Your task to perform on an android device: What's the news in Sri Lanka? Image 0: 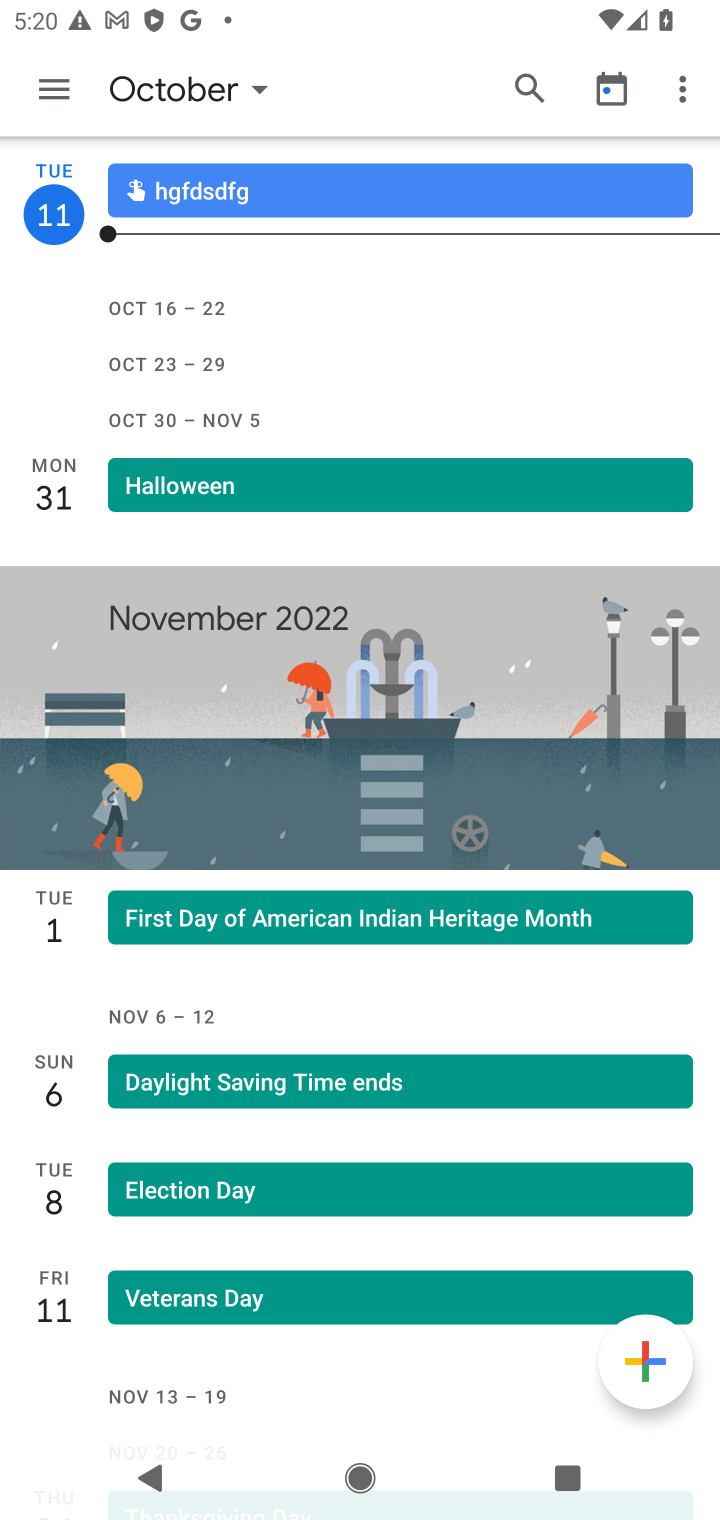
Step 0: press home button
Your task to perform on an android device: What's the news in Sri Lanka? Image 1: 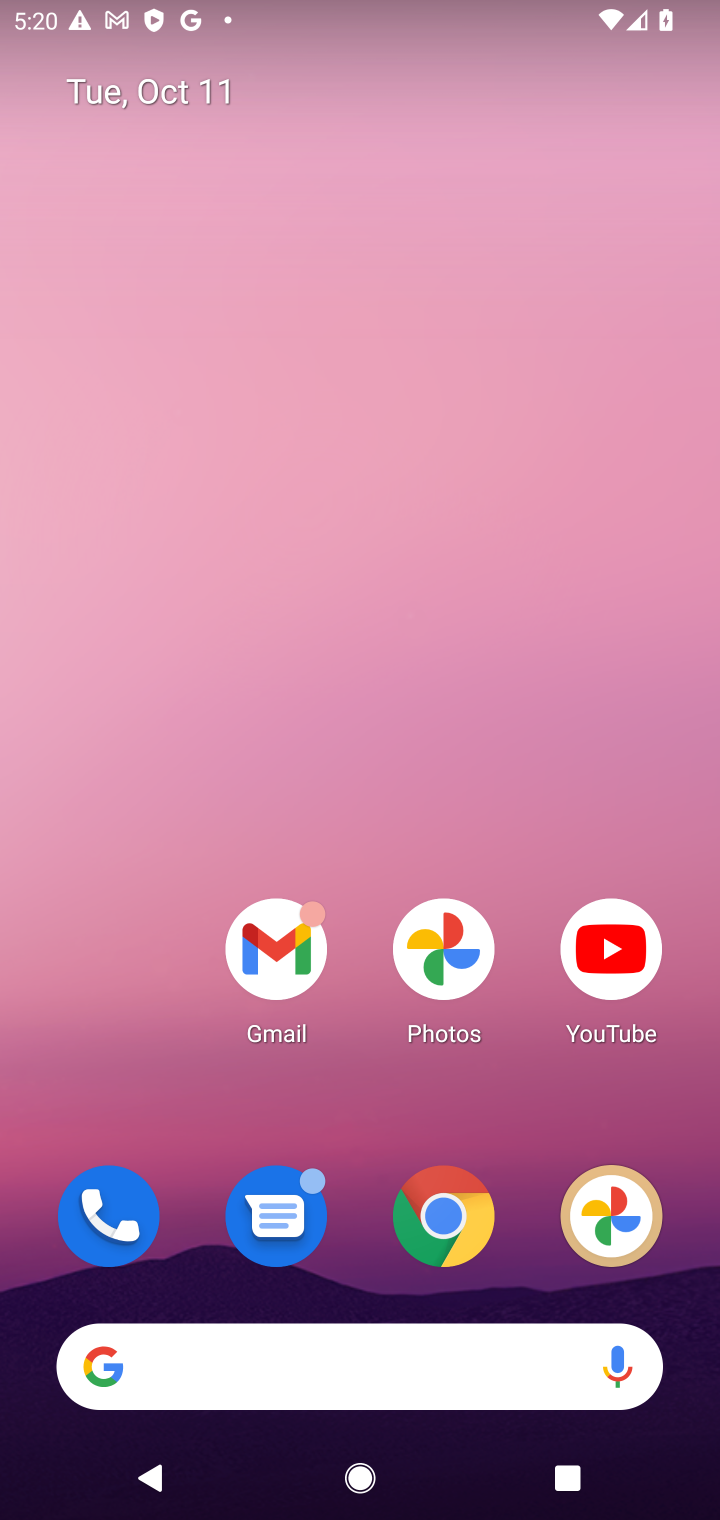
Step 1: click (422, 1250)
Your task to perform on an android device: What's the news in Sri Lanka? Image 2: 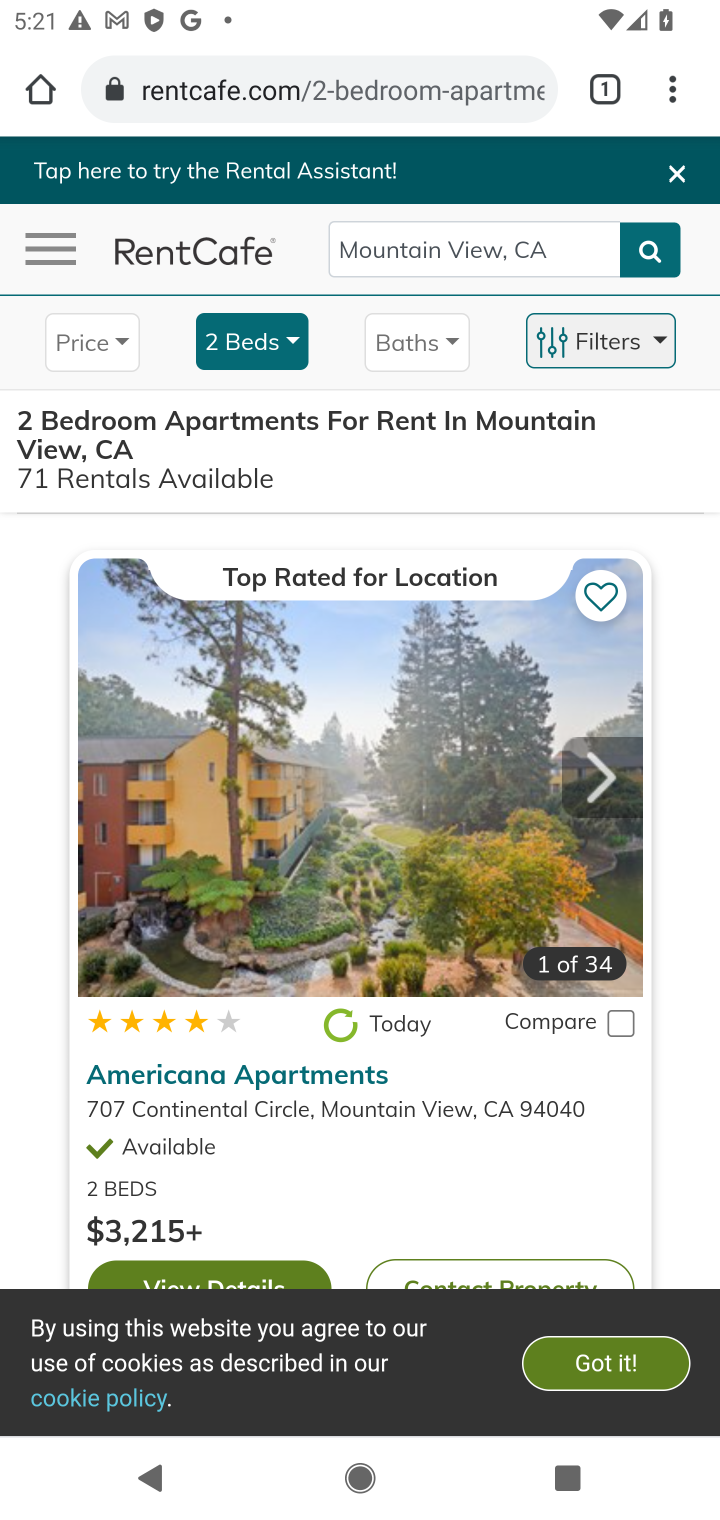
Step 2: click (309, 103)
Your task to perform on an android device: What's the news in Sri Lanka? Image 3: 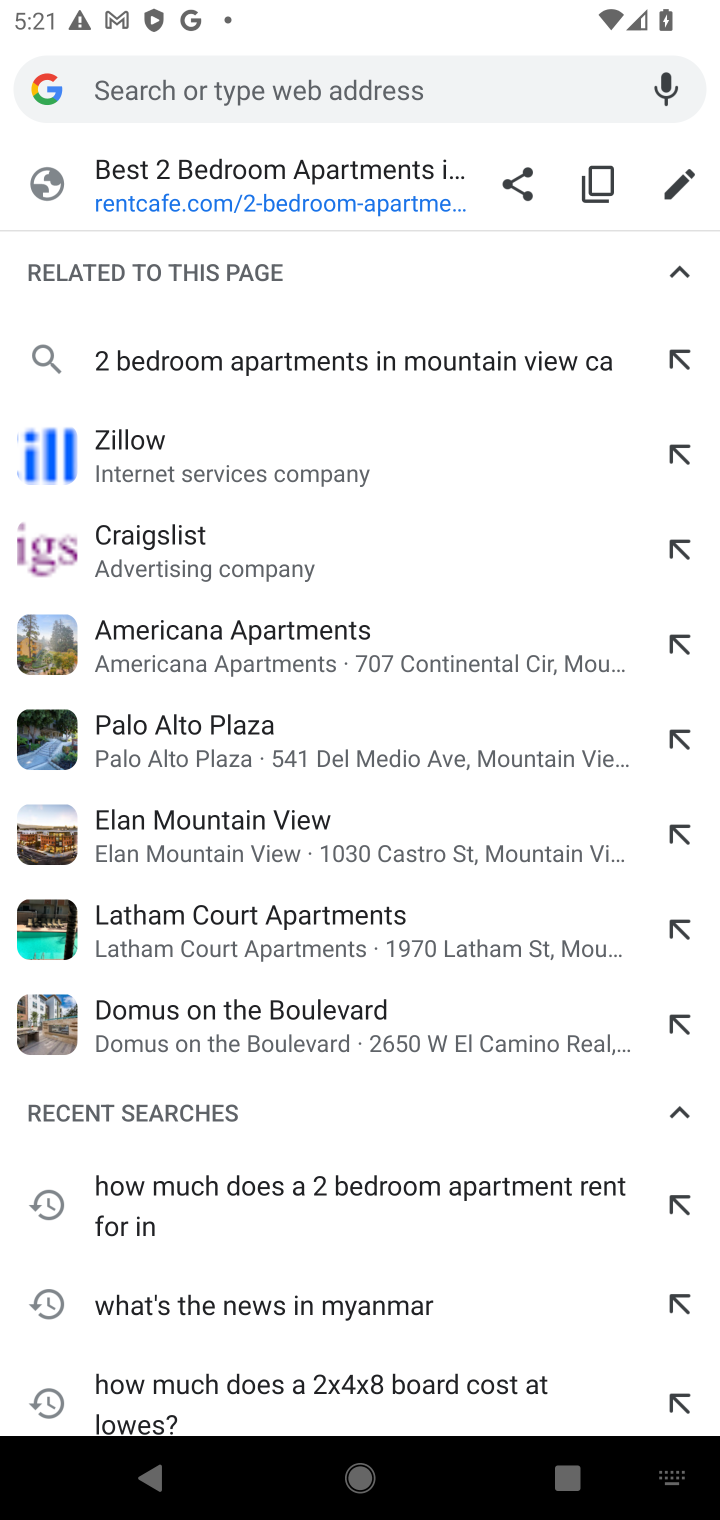
Step 3: type "What's the news in Sri Lanka?"
Your task to perform on an android device: What's the news in Sri Lanka? Image 4: 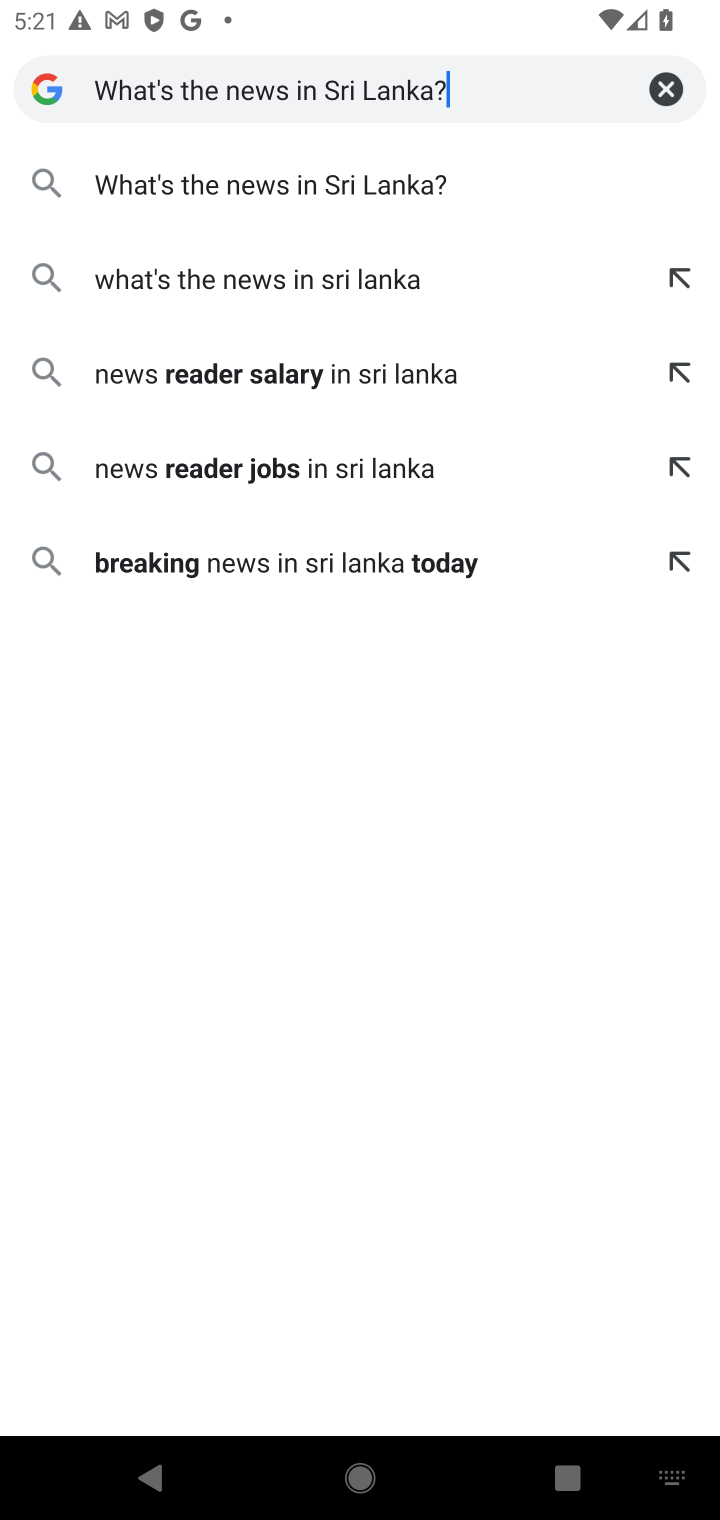
Step 4: press enter
Your task to perform on an android device: What's the news in Sri Lanka? Image 5: 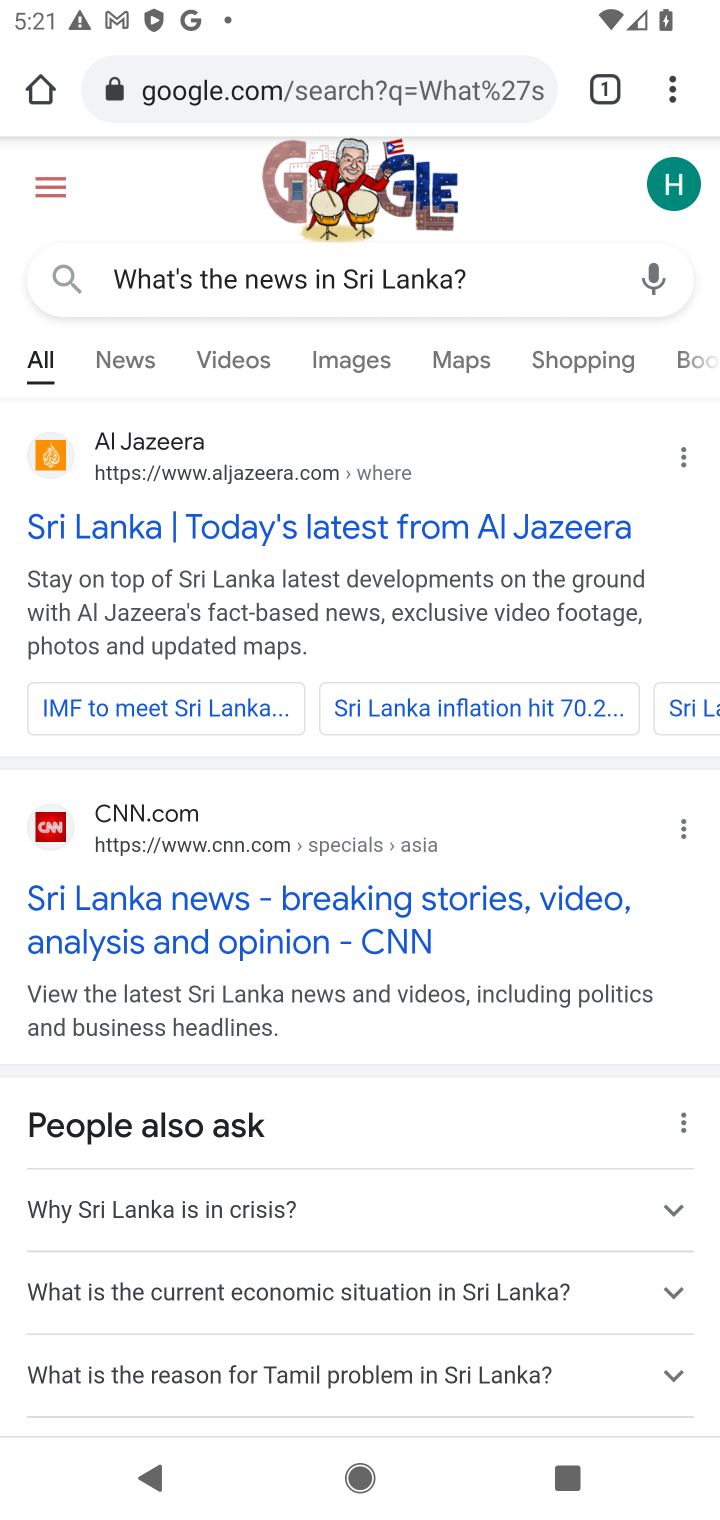
Step 5: click (109, 371)
Your task to perform on an android device: What's the news in Sri Lanka? Image 6: 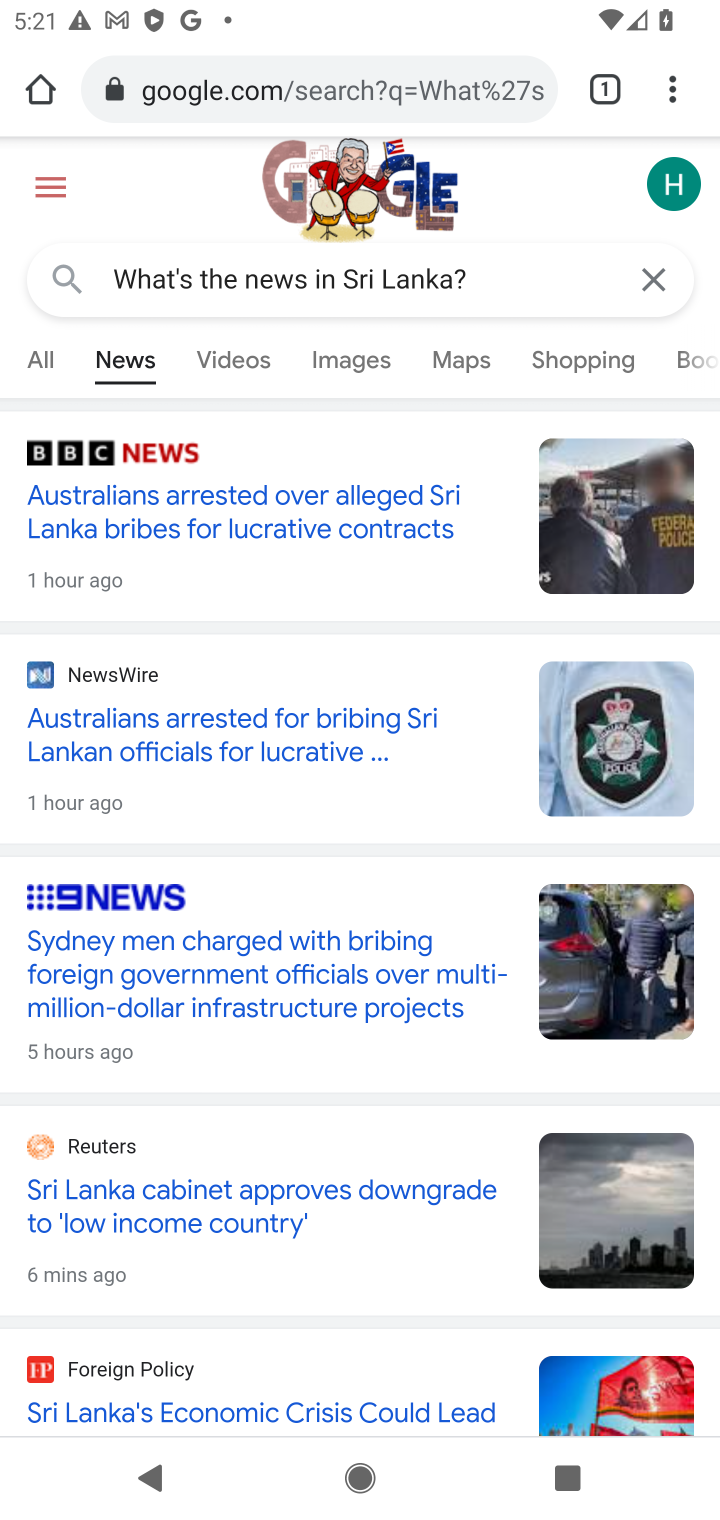
Step 6: task complete